Your task to perform on an android device: open a new tab in the chrome app Image 0: 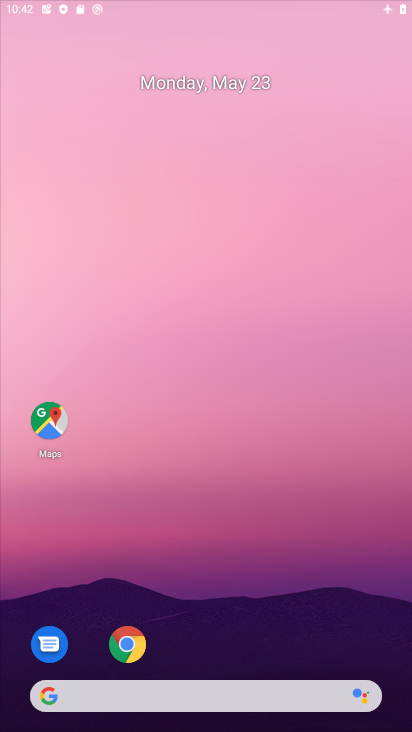
Step 0: drag from (277, 685) to (157, 57)
Your task to perform on an android device: open a new tab in the chrome app Image 1: 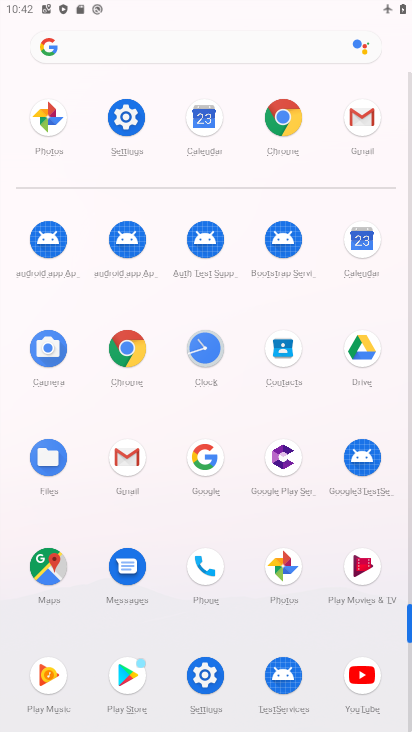
Step 1: drag from (254, 635) to (263, 25)
Your task to perform on an android device: open a new tab in the chrome app Image 2: 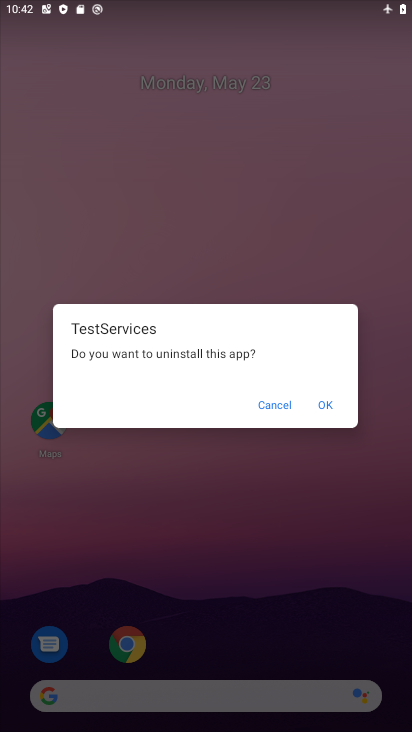
Step 2: click (280, 396)
Your task to perform on an android device: open a new tab in the chrome app Image 3: 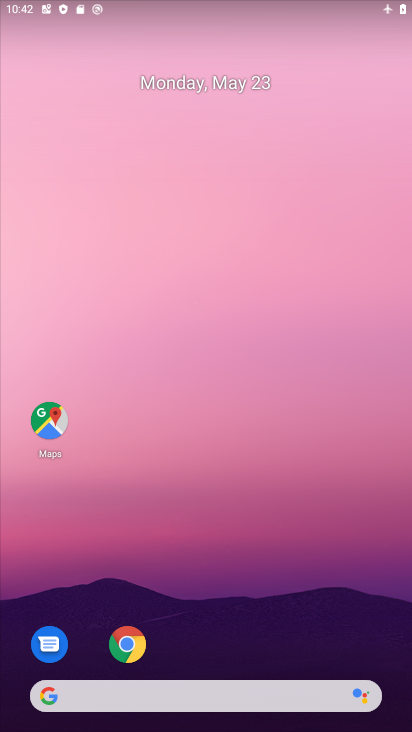
Step 3: drag from (282, 623) to (219, 44)
Your task to perform on an android device: open a new tab in the chrome app Image 4: 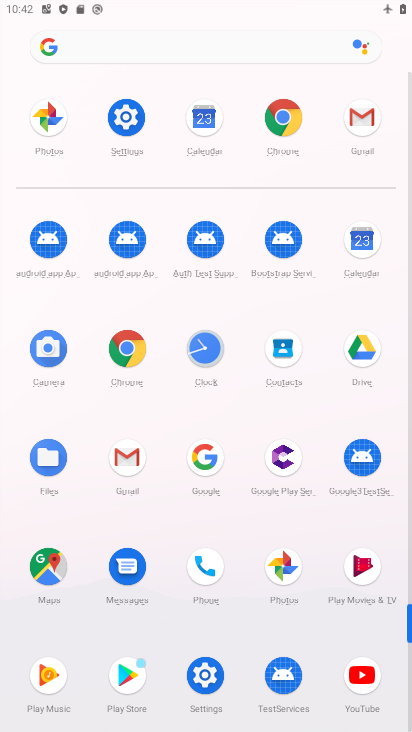
Step 4: click (271, 120)
Your task to perform on an android device: open a new tab in the chrome app Image 5: 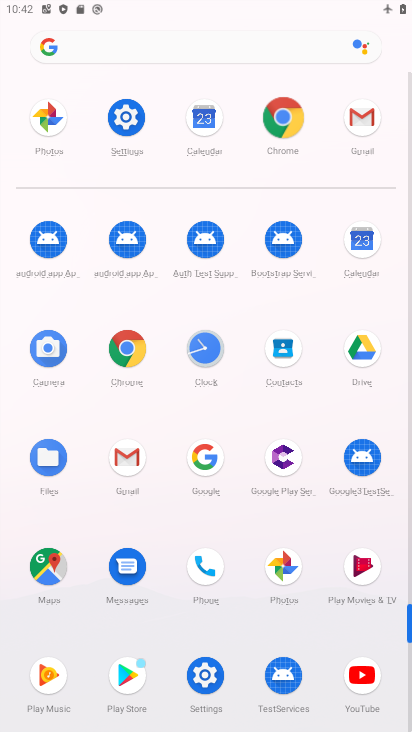
Step 5: click (278, 117)
Your task to perform on an android device: open a new tab in the chrome app Image 6: 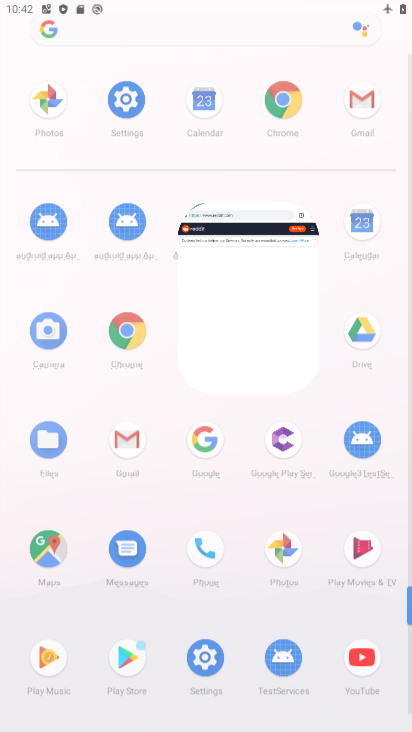
Step 6: click (278, 117)
Your task to perform on an android device: open a new tab in the chrome app Image 7: 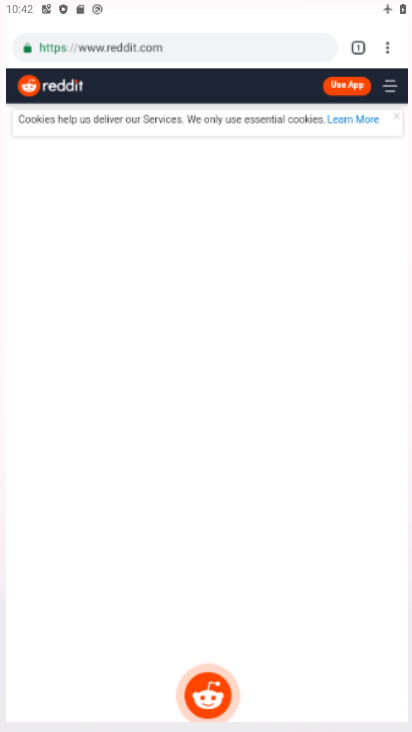
Step 7: click (279, 117)
Your task to perform on an android device: open a new tab in the chrome app Image 8: 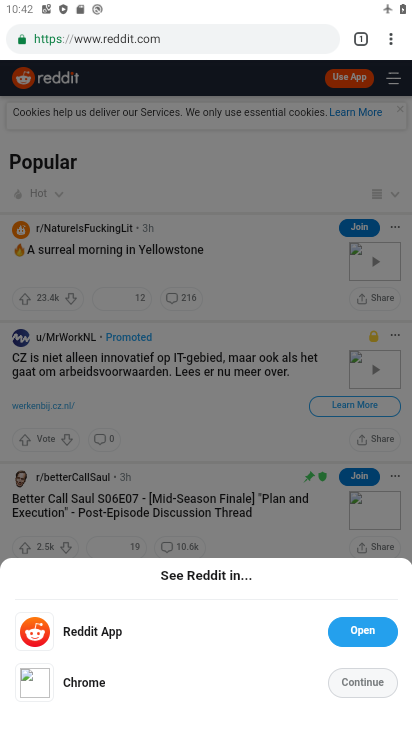
Step 8: press back button
Your task to perform on an android device: open a new tab in the chrome app Image 9: 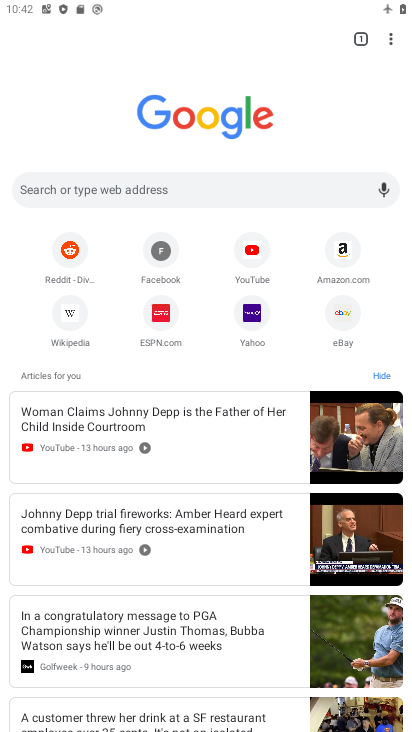
Step 9: drag from (390, 39) to (246, 72)
Your task to perform on an android device: open a new tab in the chrome app Image 10: 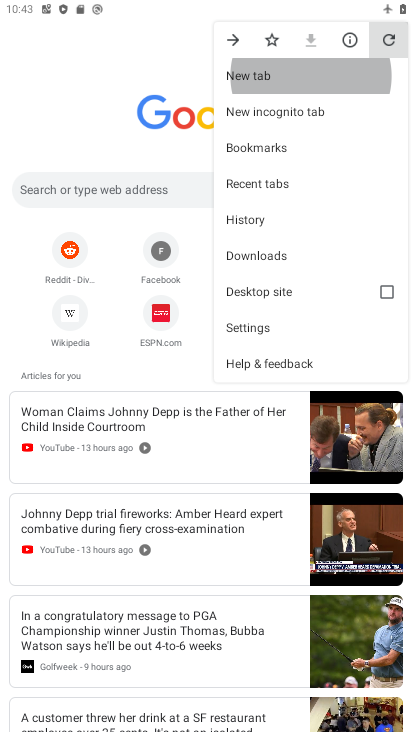
Step 10: click (259, 65)
Your task to perform on an android device: open a new tab in the chrome app Image 11: 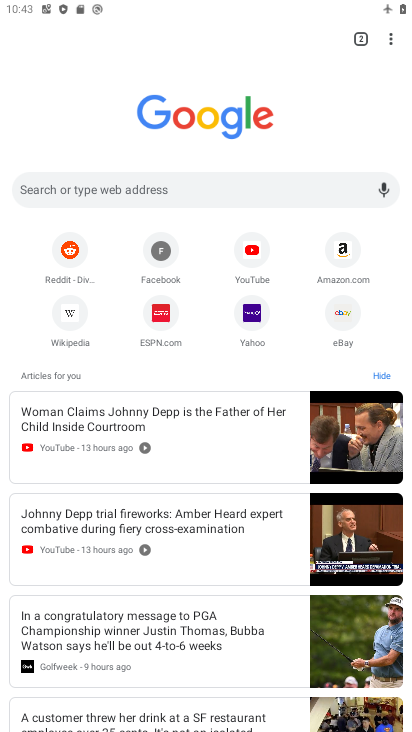
Step 11: task complete